Your task to perform on an android device: delete a single message in the gmail app Image 0: 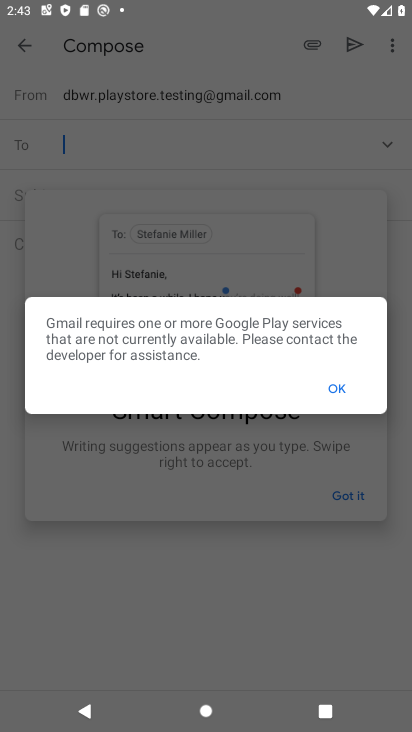
Step 0: press home button
Your task to perform on an android device: delete a single message in the gmail app Image 1: 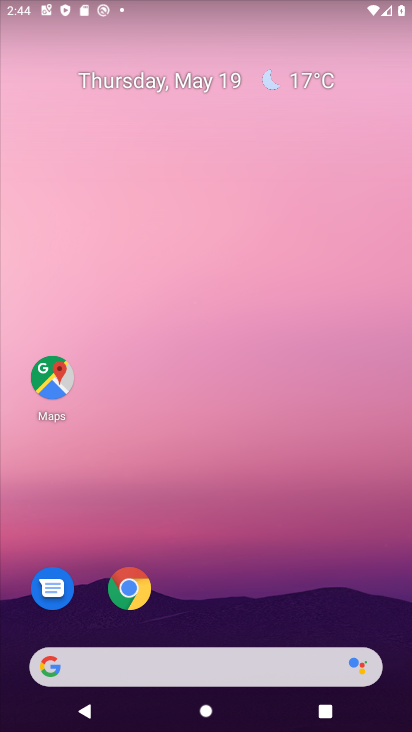
Step 1: drag from (295, 568) to (281, 114)
Your task to perform on an android device: delete a single message in the gmail app Image 2: 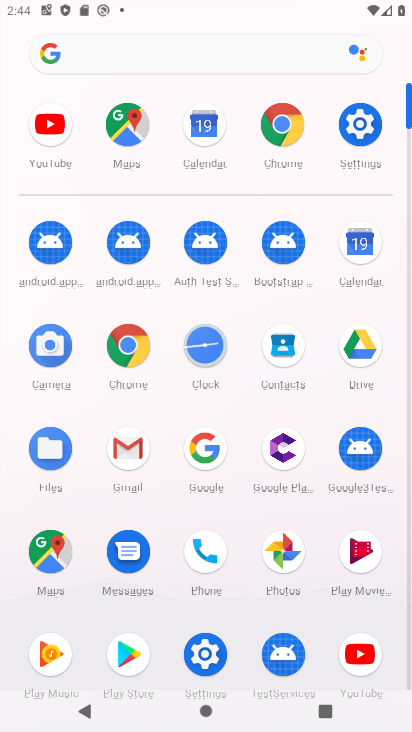
Step 2: click (139, 452)
Your task to perform on an android device: delete a single message in the gmail app Image 3: 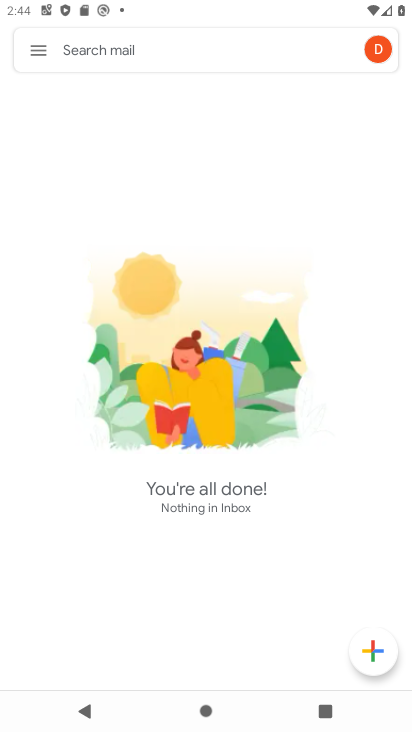
Step 3: click (36, 46)
Your task to perform on an android device: delete a single message in the gmail app Image 4: 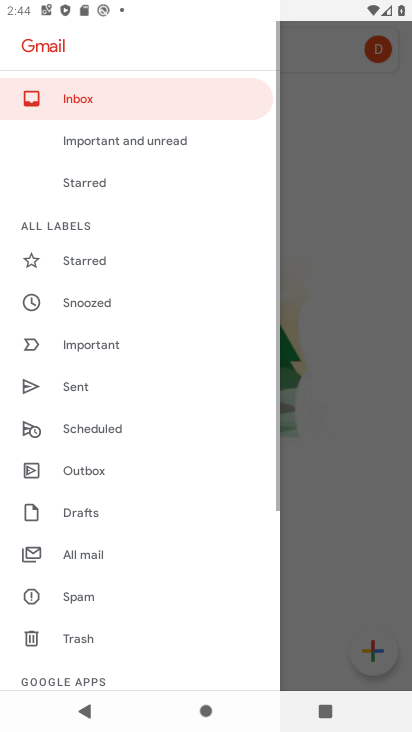
Step 4: drag from (99, 625) to (152, 134)
Your task to perform on an android device: delete a single message in the gmail app Image 5: 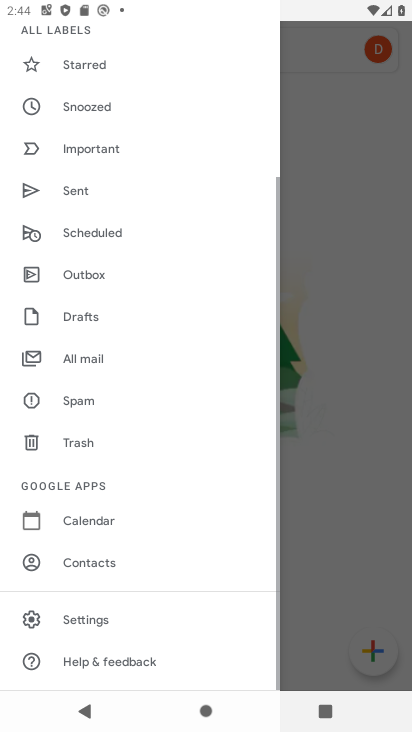
Step 5: click (80, 624)
Your task to perform on an android device: delete a single message in the gmail app Image 6: 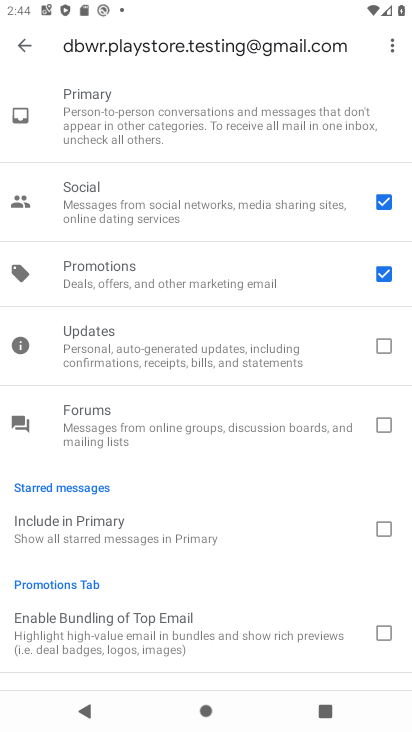
Step 6: click (16, 40)
Your task to perform on an android device: delete a single message in the gmail app Image 7: 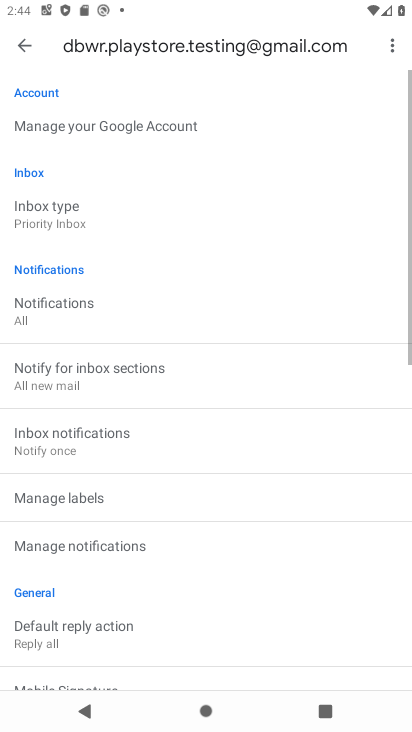
Step 7: click (17, 41)
Your task to perform on an android device: delete a single message in the gmail app Image 8: 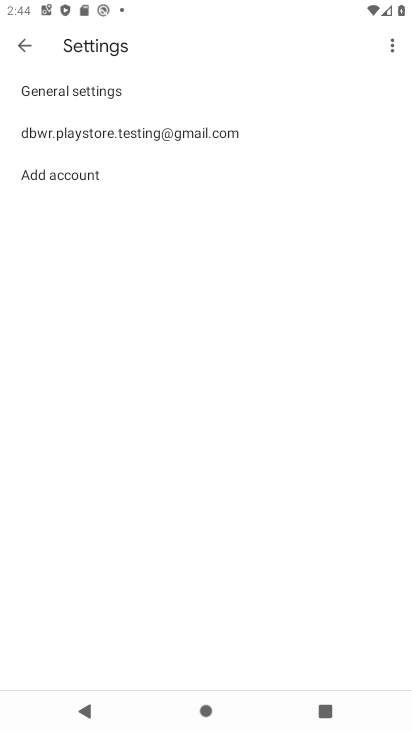
Step 8: click (17, 41)
Your task to perform on an android device: delete a single message in the gmail app Image 9: 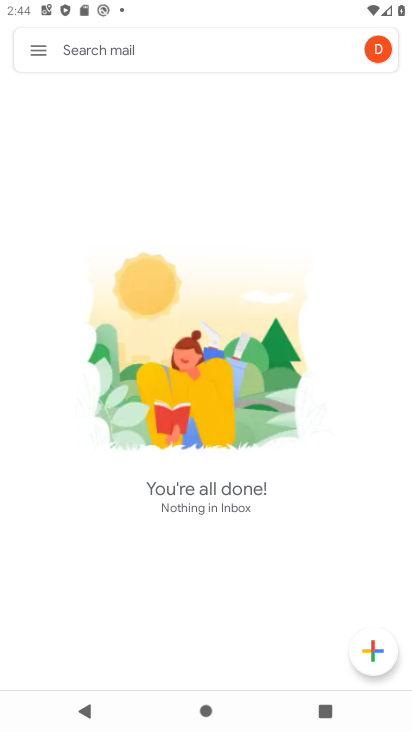
Step 9: click (17, 41)
Your task to perform on an android device: delete a single message in the gmail app Image 10: 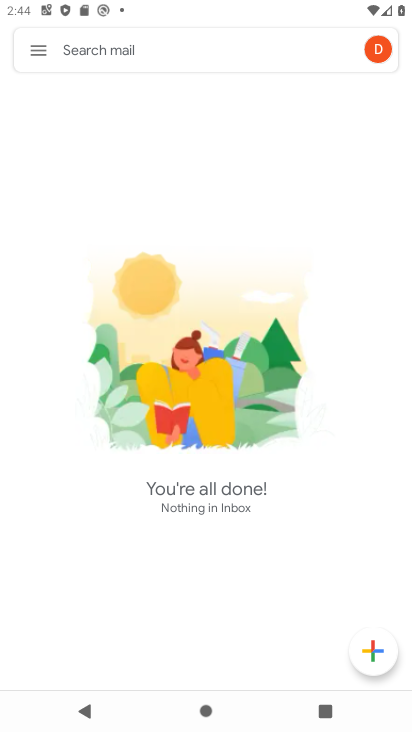
Step 10: click (41, 46)
Your task to perform on an android device: delete a single message in the gmail app Image 11: 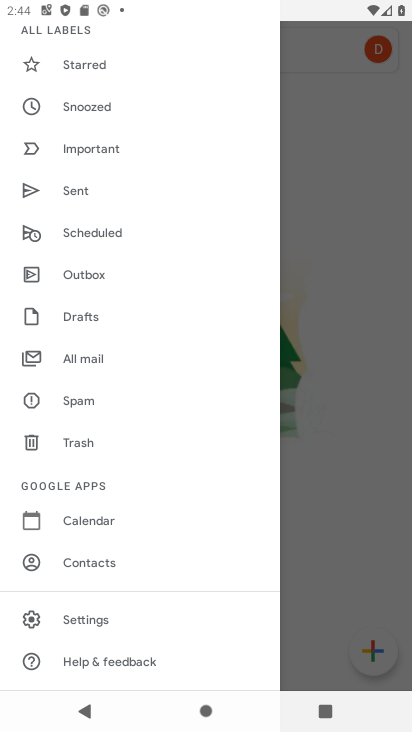
Step 11: click (66, 356)
Your task to perform on an android device: delete a single message in the gmail app Image 12: 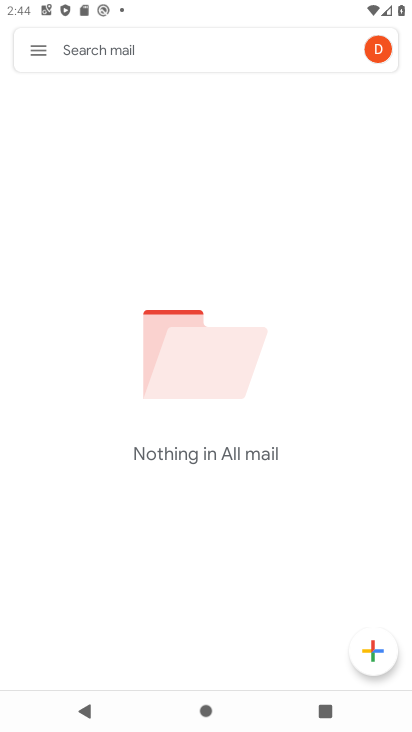
Step 12: task complete